Your task to perform on an android device: Open Youtube and go to "Your channel" Image 0: 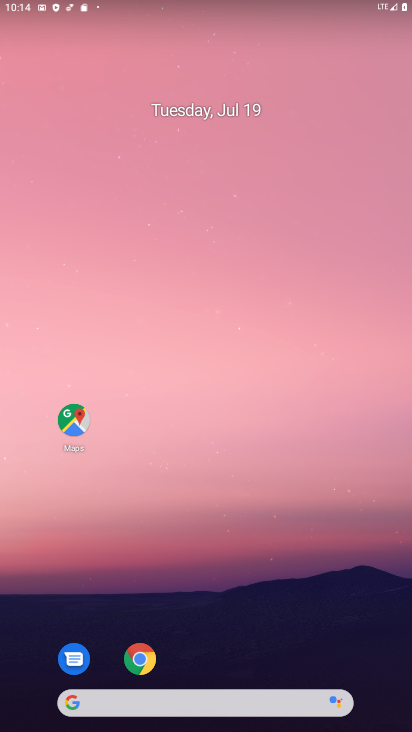
Step 0: drag from (278, 597) to (245, 286)
Your task to perform on an android device: Open Youtube and go to "Your channel" Image 1: 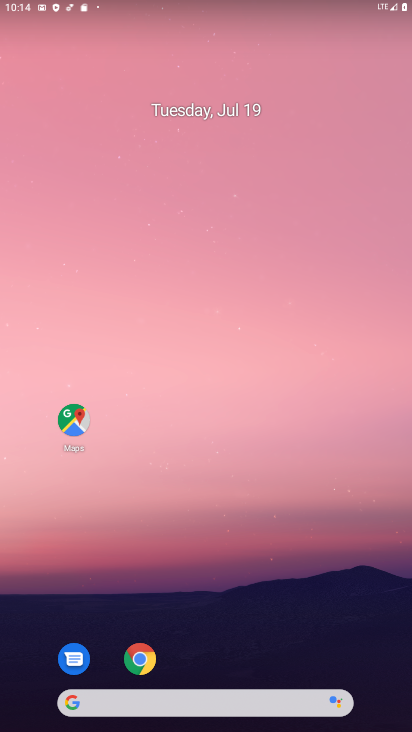
Step 1: drag from (285, 536) to (279, 175)
Your task to perform on an android device: Open Youtube and go to "Your channel" Image 2: 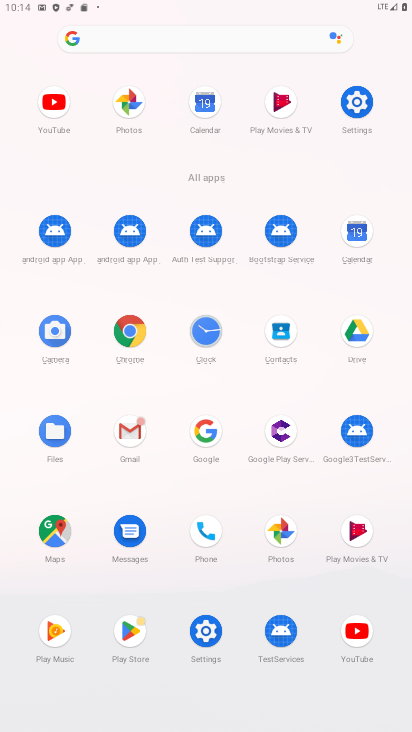
Step 2: click (361, 628)
Your task to perform on an android device: Open Youtube and go to "Your channel" Image 3: 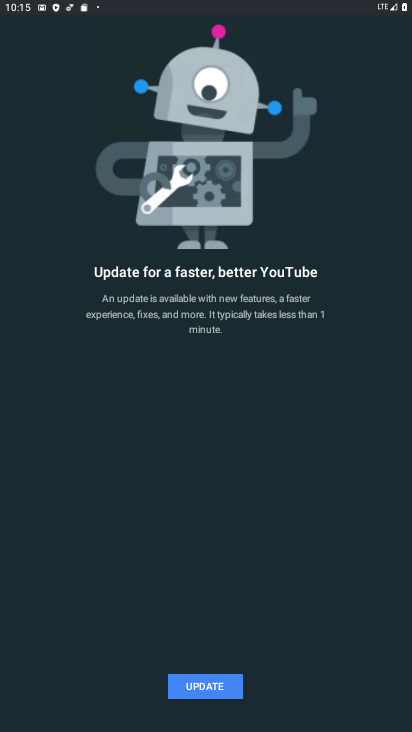
Step 3: task complete